Your task to perform on an android device: change the clock display to digital Image 0: 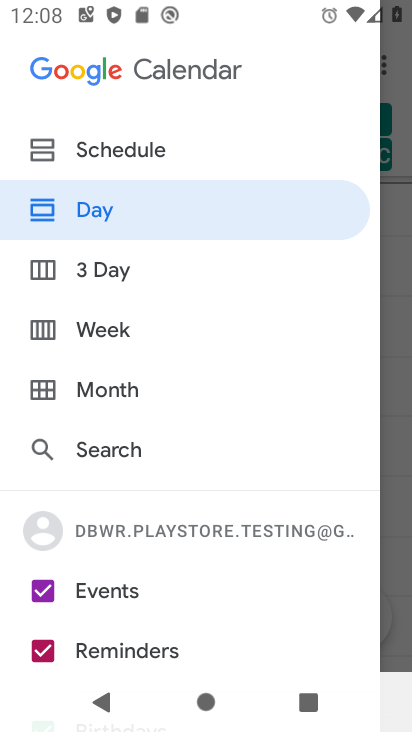
Step 0: press home button
Your task to perform on an android device: change the clock display to digital Image 1: 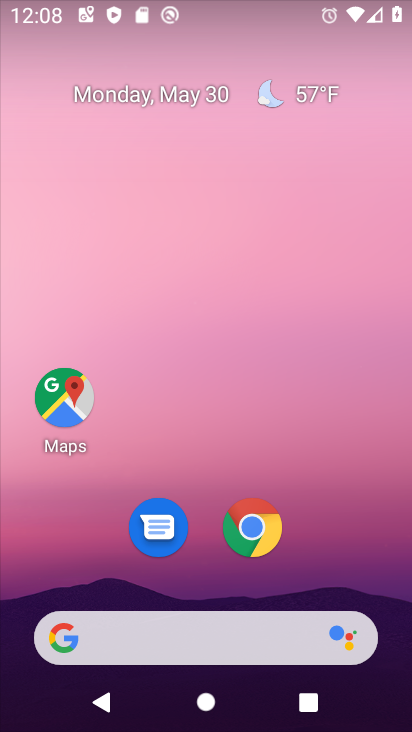
Step 1: drag from (181, 588) to (198, 148)
Your task to perform on an android device: change the clock display to digital Image 2: 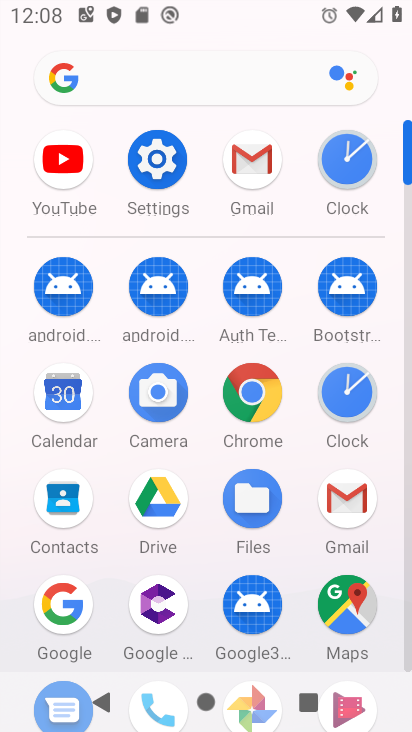
Step 2: click (350, 174)
Your task to perform on an android device: change the clock display to digital Image 3: 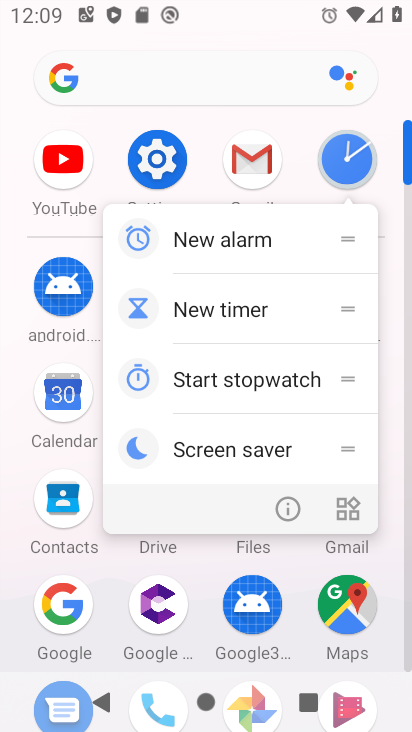
Step 3: click (356, 157)
Your task to perform on an android device: change the clock display to digital Image 4: 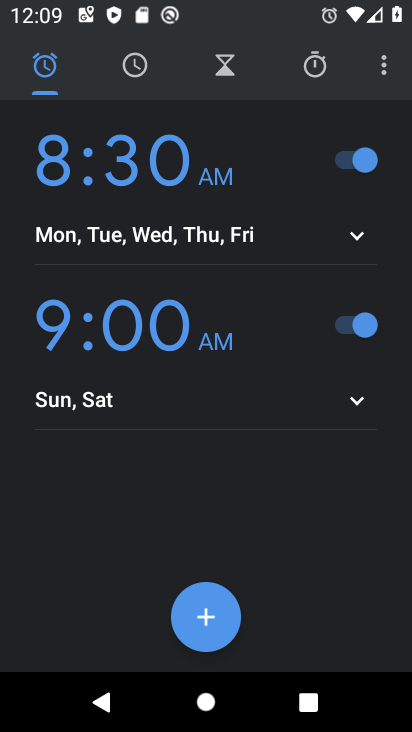
Step 4: click (396, 62)
Your task to perform on an android device: change the clock display to digital Image 5: 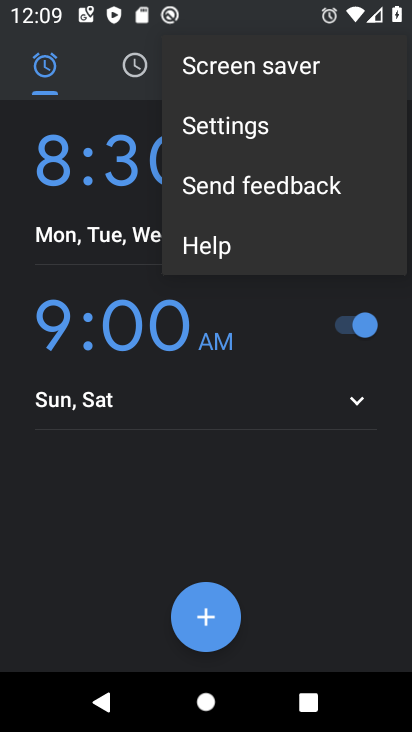
Step 5: click (243, 140)
Your task to perform on an android device: change the clock display to digital Image 6: 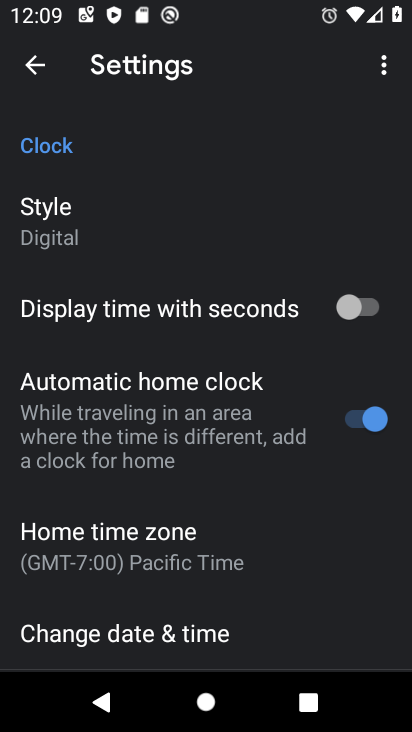
Step 6: task complete